Your task to perform on an android device: set an alarm Image 0: 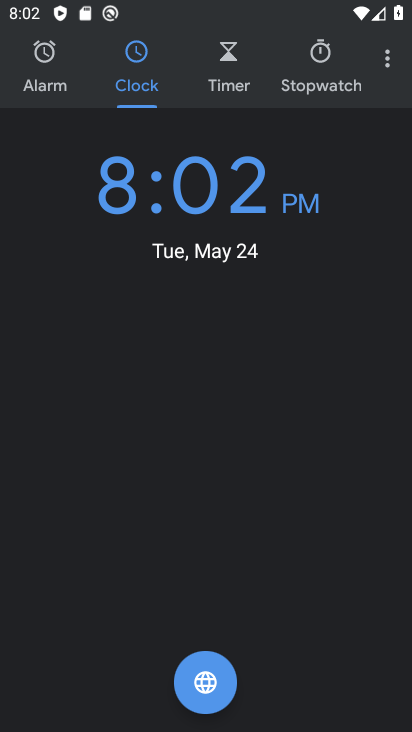
Step 0: press home button
Your task to perform on an android device: set an alarm Image 1: 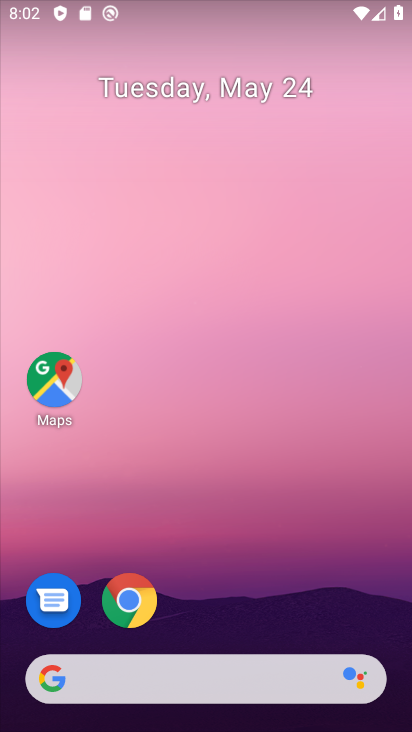
Step 1: drag from (178, 724) to (181, 98)
Your task to perform on an android device: set an alarm Image 2: 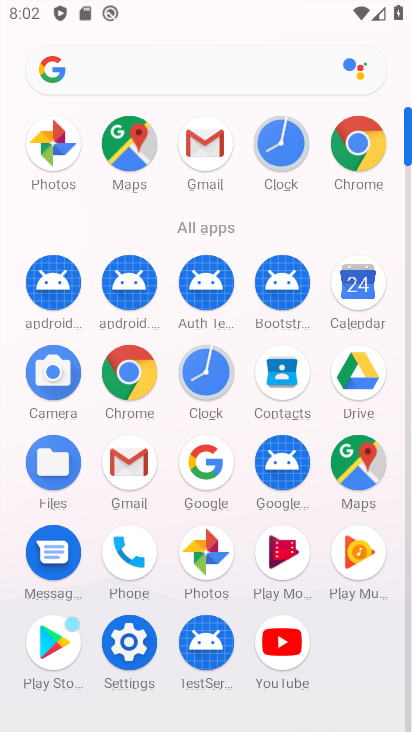
Step 2: click (211, 377)
Your task to perform on an android device: set an alarm Image 3: 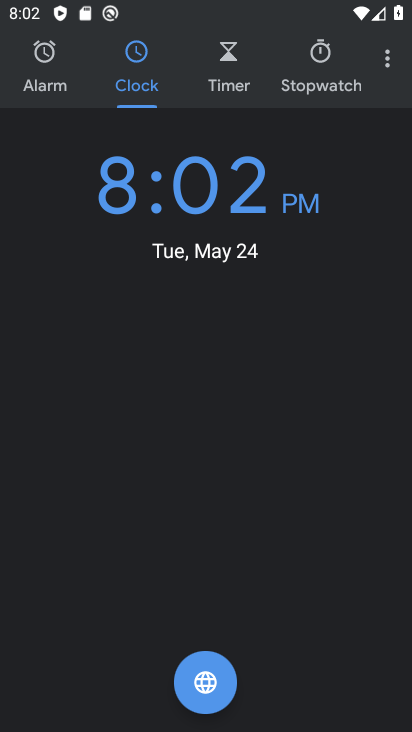
Step 3: click (37, 58)
Your task to perform on an android device: set an alarm Image 4: 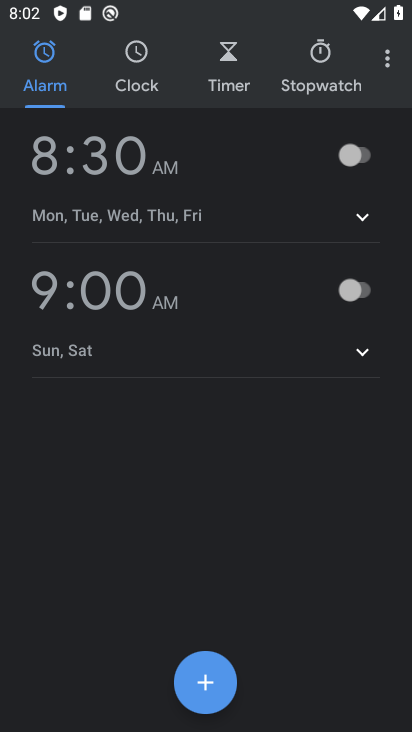
Step 4: click (207, 676)
Your task to perform on an android device: set an alarm Image 5: 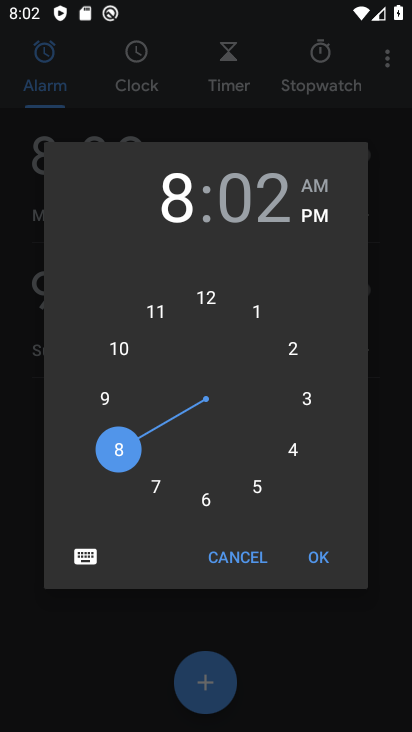
Step 5: click (209, 502)
Your task to perform on an android device: set an alarm Image 6: 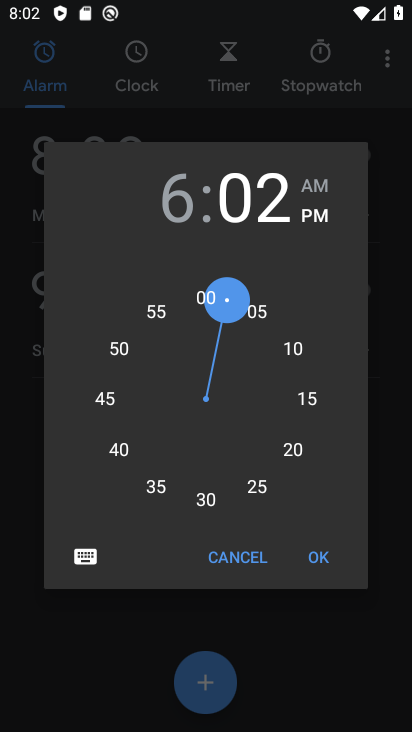
Step 6: click (323, 557)
Your task to perform on an android device: set an alarm Image 7: 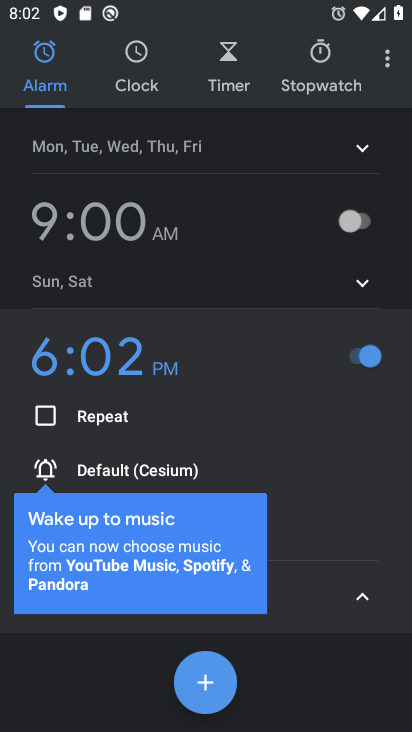
Step 7: task complete